Your task to perform on an android device: open sync settings in chrome Image 0: 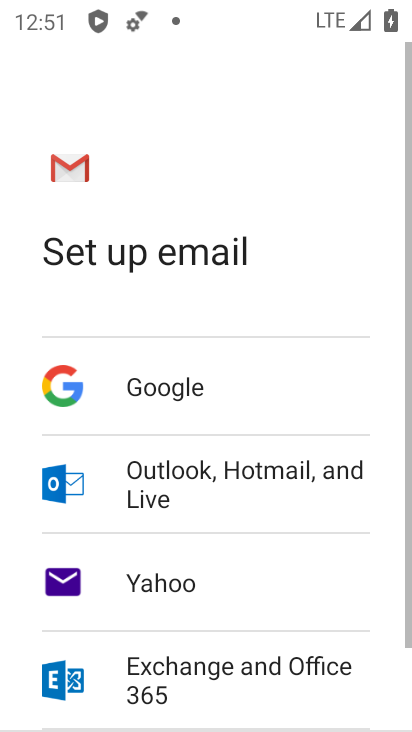
Step 0: press home button
Your task to perform on an android device: open sync settings in chrome Image 1: 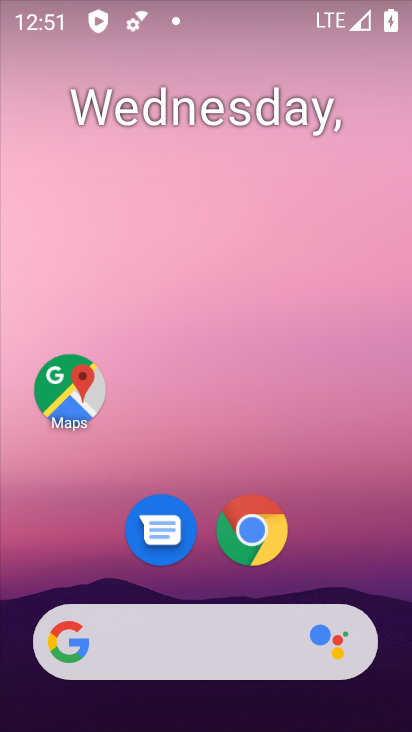
Step 1: drag from (371, 544) to (324, 187)
Your task to perform on an android device: open sync settings in chrome Image 2: 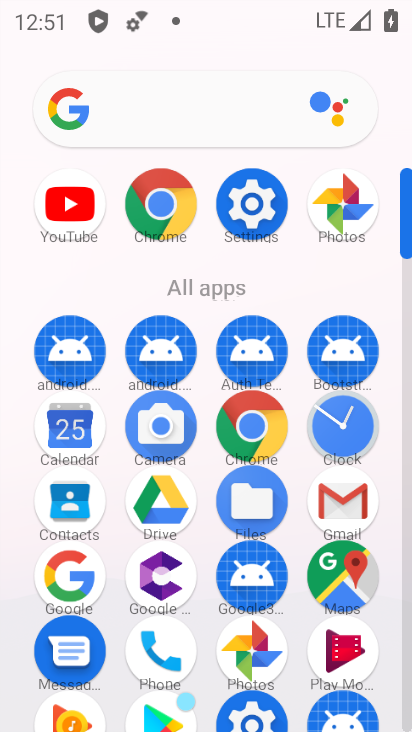
Step 2: click (238, 440)
Your task to perform on an android device: open sync settings in chrome Image 3: 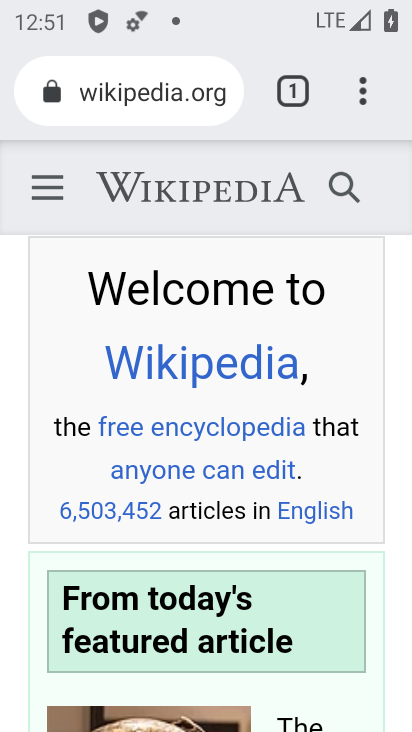
Step 3: drag from (373, 75) to (155, 570)
Your task to perform on an android device: open sync settings in chrome Image 4: 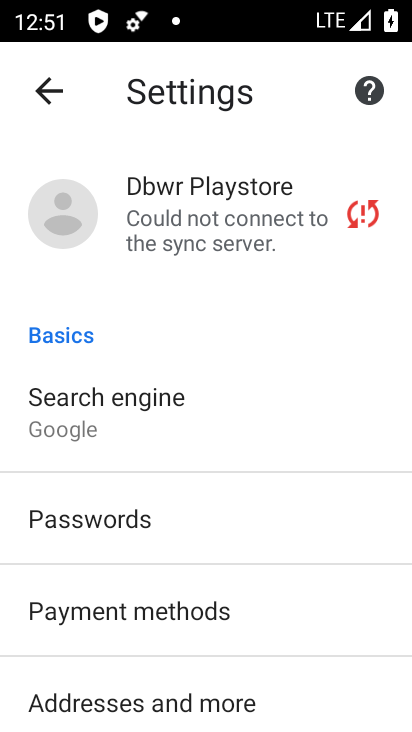
Step 4: drag from (238, 618) to (237, 235)
Your task to perform on an android device: open sync settings in chrome Image 5: 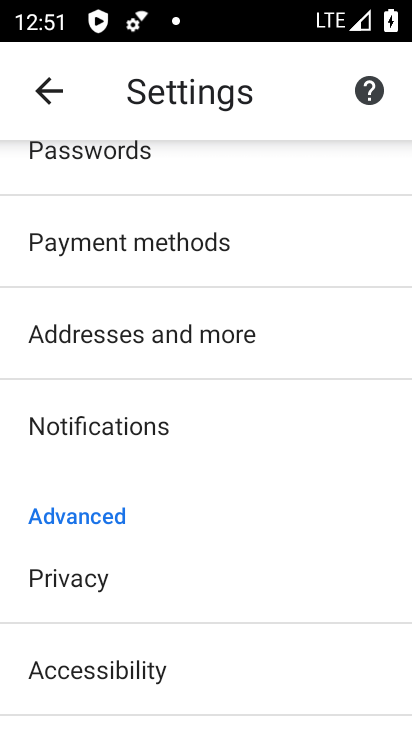
Step 5: drag from (238, 610) to (239, 259)
Your task to perform on an android device: open sync settings in chrome Image 6: 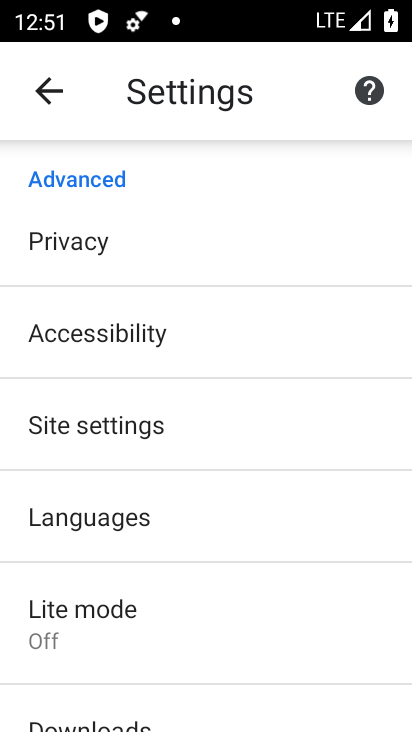
Step 6: drag from (232, 569) to (278, 343)
Your task to perform on an android device: open sync settings in chrome Image 7: 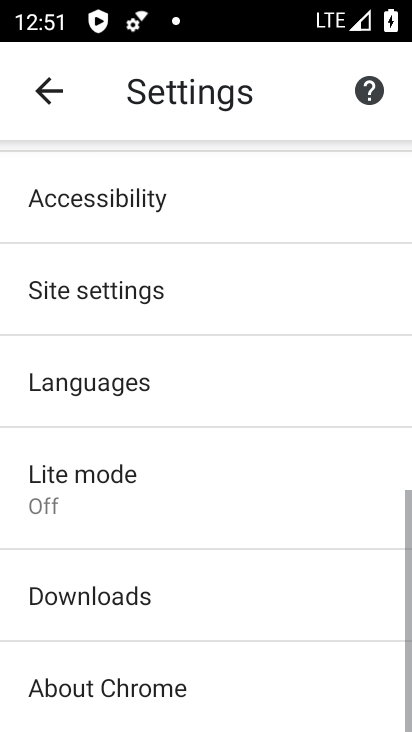
Step 7: click (187, 285)
Your task to perform on an android device: open sync settings in chrome Image 8: 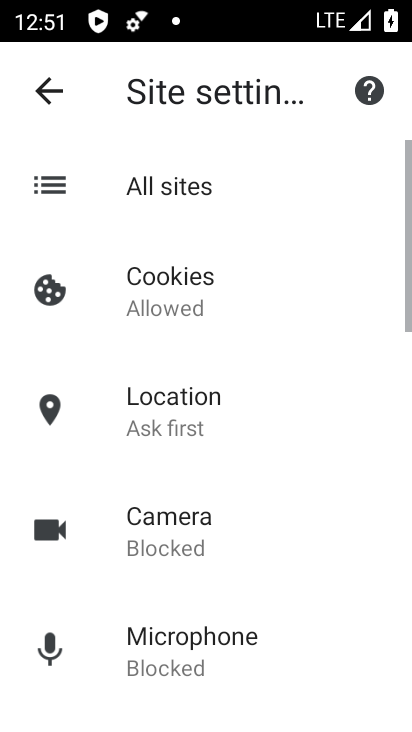
Step 8: drag from (272, 677) to (242, 256)
Your task to perform on an android device: open sync settings in chrome Image 9: 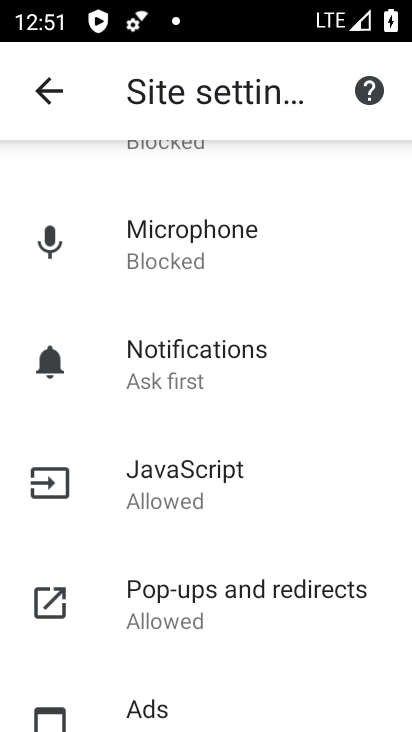
Step 9: drag from (256, 651) to (249, 248)
Your task to perform on an android device: open sync settings in chrome Image 10: 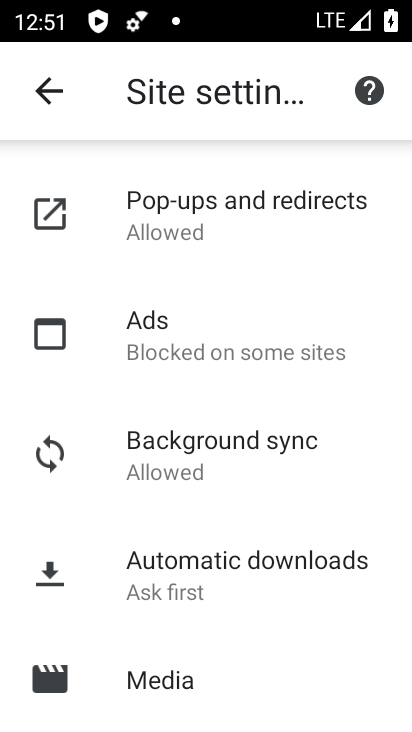
Step 10: click (262, 455)
Your task to perform on an android device: open sync settings in chrome Image 11: 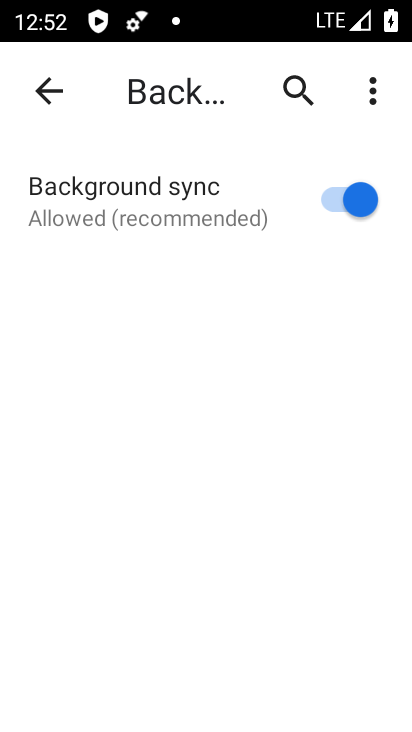
Step 11: task complete